Your task to perform on an android device: Go to Google maps Image 0: 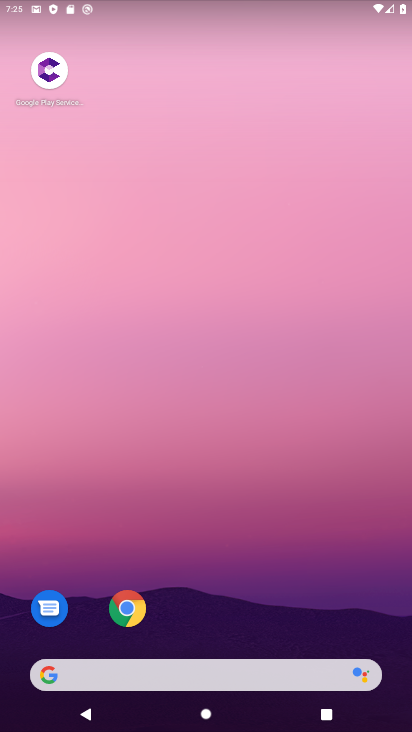
Step 0: drag from (176, 709) to (73, 34)
Your task to perform on an android device: Go to Google maps Image 1: 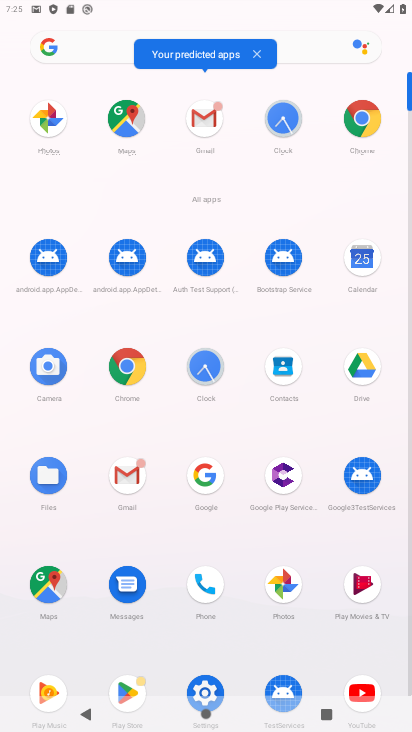
Step 1: click (133, 99)
Your task to perform on an android device: Go to Google maps Image 2: 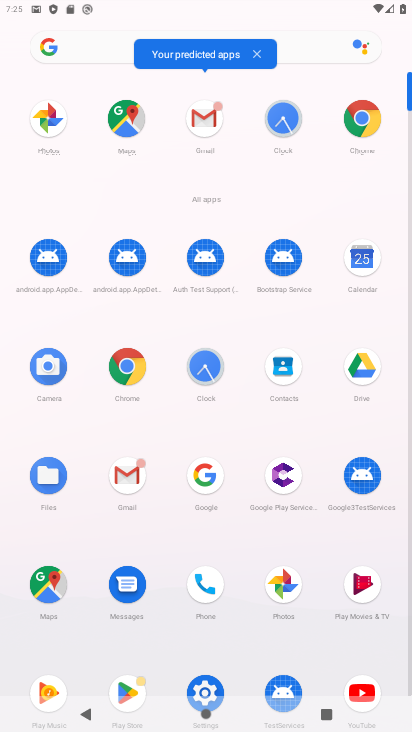
Step 2: click (133, 99)
Your task to perform on an android device: Go to Google maps Image 3: 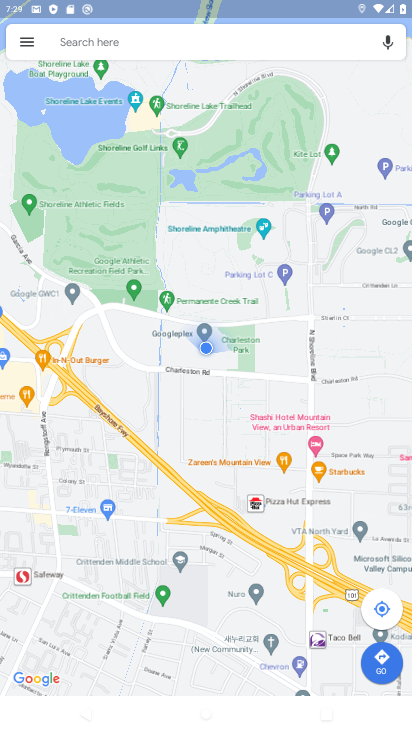
Step 3: task complete